Your task to perform on an android device: Open Yahoo.com Image 0: 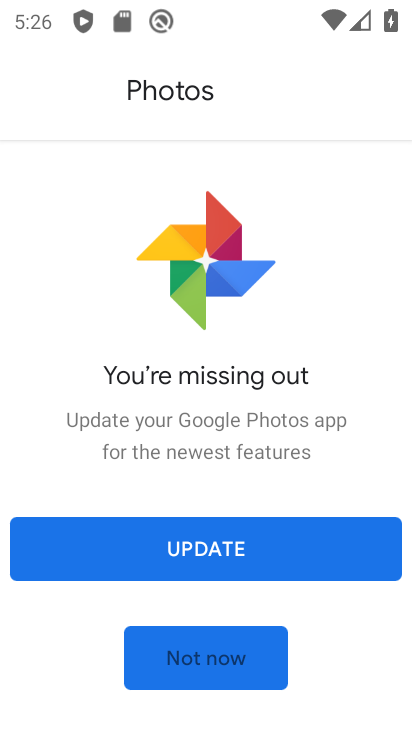
Step 0: press home button
Your task to perform on an android device: Open Yahoo.com Image 1: 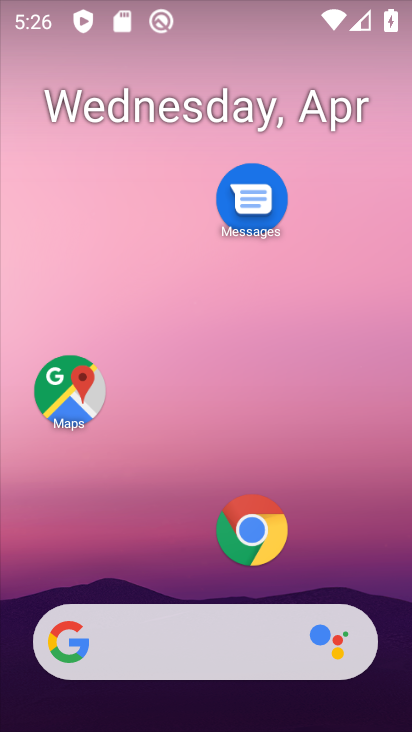
Step 1: click (253, 534)
Your task to perform on an android device: Open Yahoo.com Image 2: 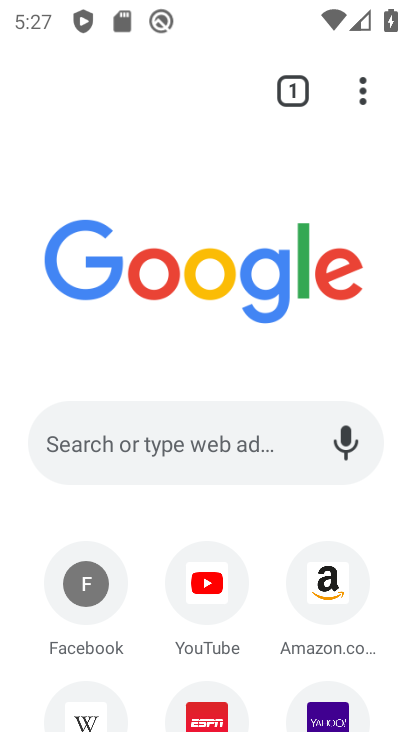
Step 2: click (249, 445)
Your task to perform on an android device: Open Yahoo.com Image 3: 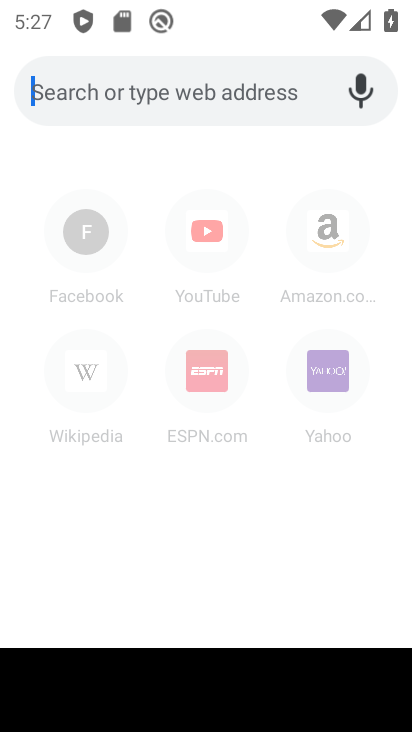
Step 3: click (155, 93)
Your task to perform on an android device: Open Yahoo.com Image 4: 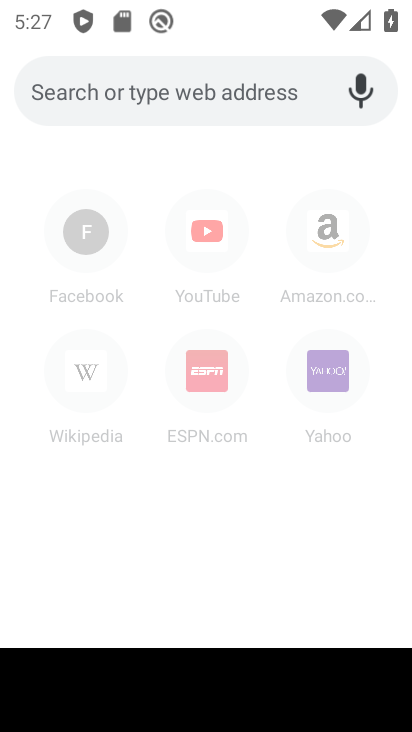
Step 4: type "Yahoo.com"
Your task to perform on an android device: Open Yahoo.com Image 5: 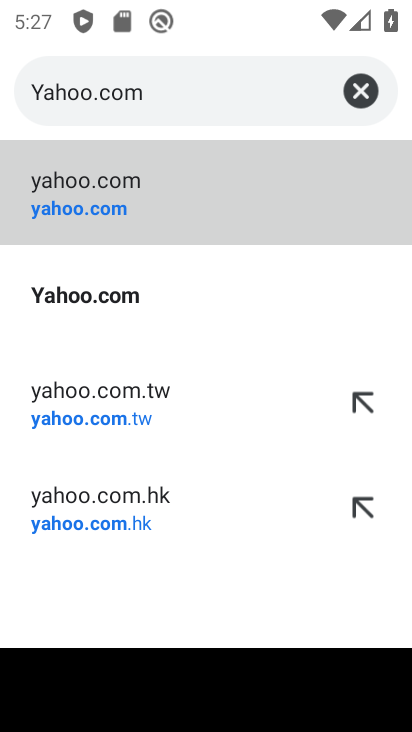
Step 5: click (109, 207)
Your task to perform on an android device: Open Yahoo.com Image 6: 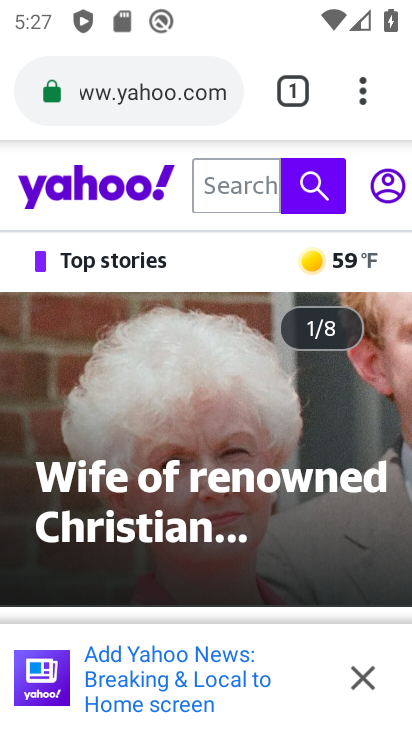
Step 6: task complete